Your task to perform on an android device: Search for Mexican restaurants on Maps Image 0: 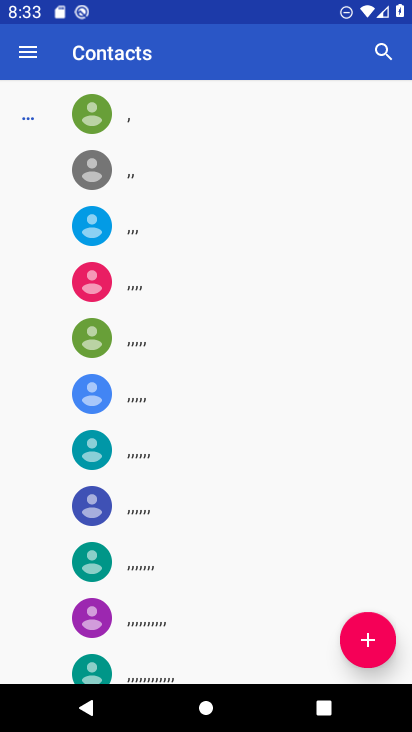
Step 0: press home button
Your task to perform on an android device: Search for Mexican restaurants on Maps Image 1: 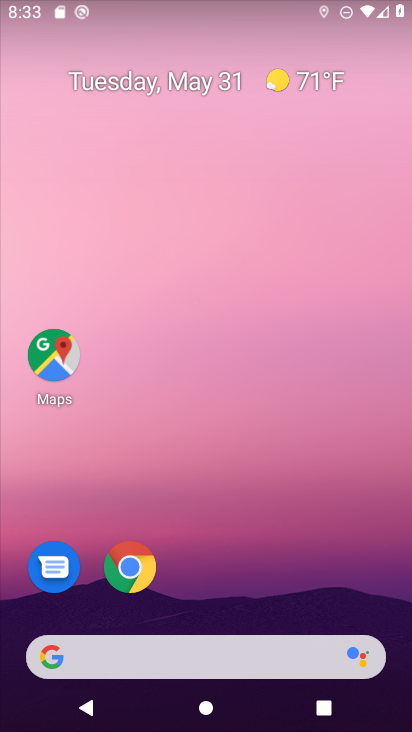
Step 1: click (57, 361)
Your task to perform on an android device: Search for Mexican restaurants on Maps Image 2: 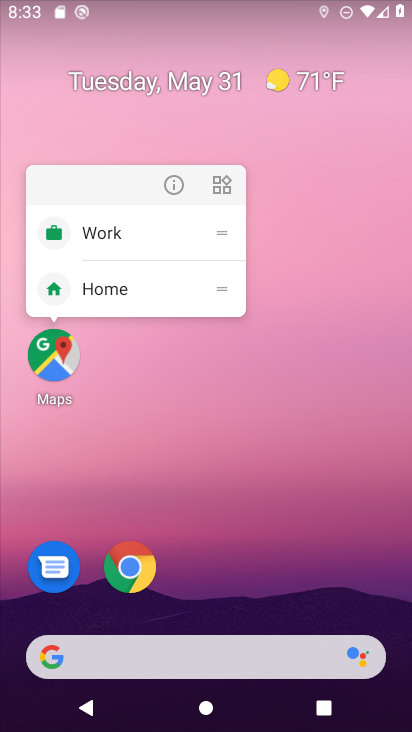
Step 2: click (57, 361)
Your task to perform on an android device: Search for Mexican restaurants on Maps Image 3: 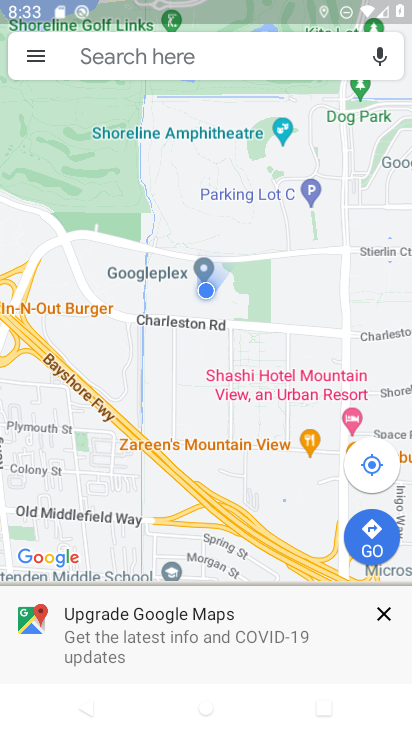
Step 3: click (139, 60)
Your task to perform on an android device: Search for Mexican restaurants on Maps Image 4: 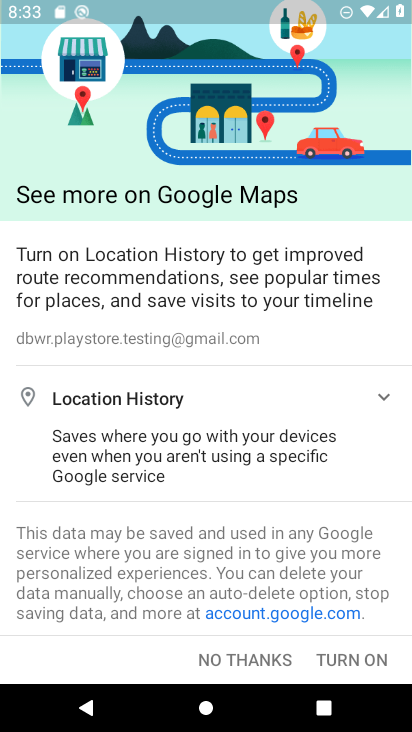
Step 4: click (355, 664)
Your task to perform on an android device: Search for Mexican restaurants on Maps Image 5: 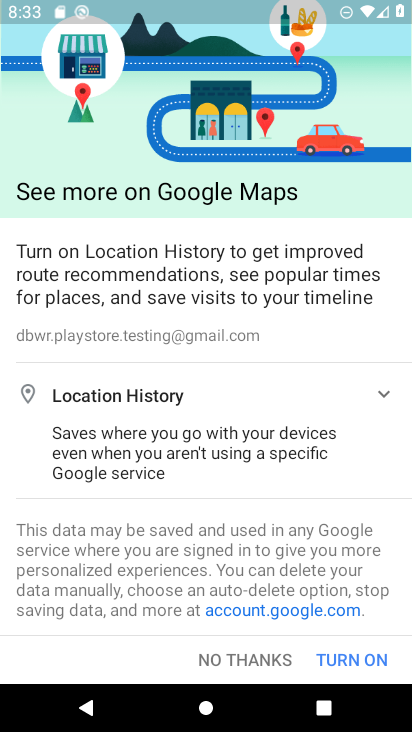
Step 5: click (352, 663)
Your task to perform on an android device: Search for Mexican restaurants on Maps Image 6: 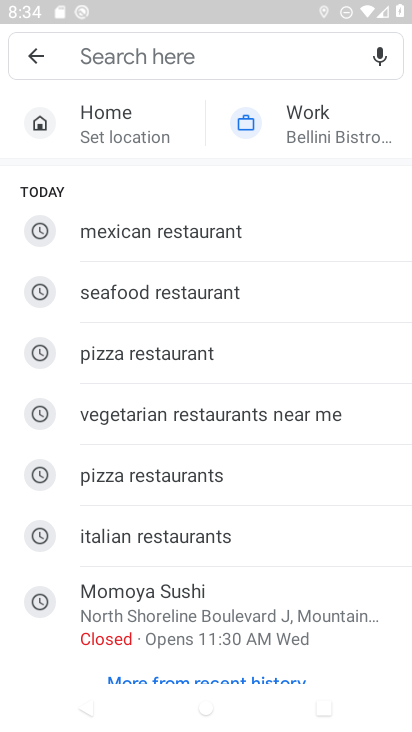
Step 6: click (169, 234)
Your task to perform on an android device: Search for Mexican restaurants on Maps Image 7: 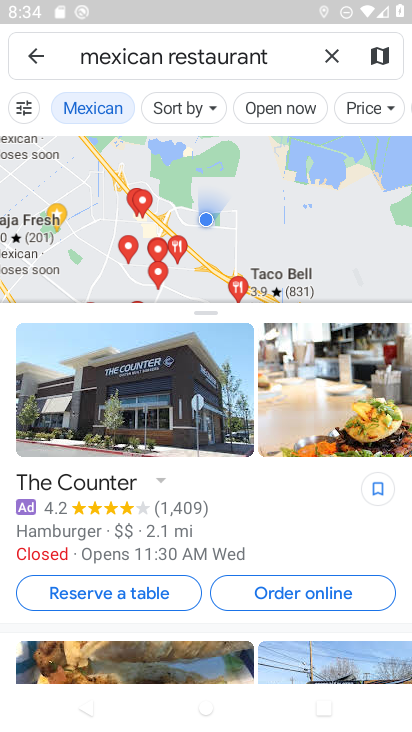
Step 7: task complete